Your task to perform on an android device: Go to Android settings Image 0: 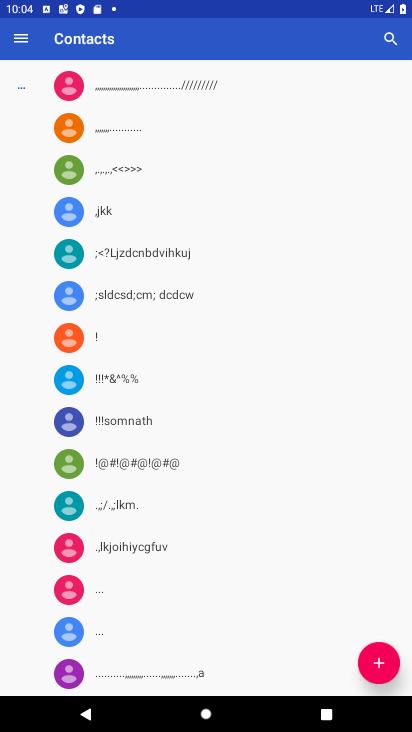
Step 0: press home button
Your task to perform on an android device: Go to Android settings Image 1: 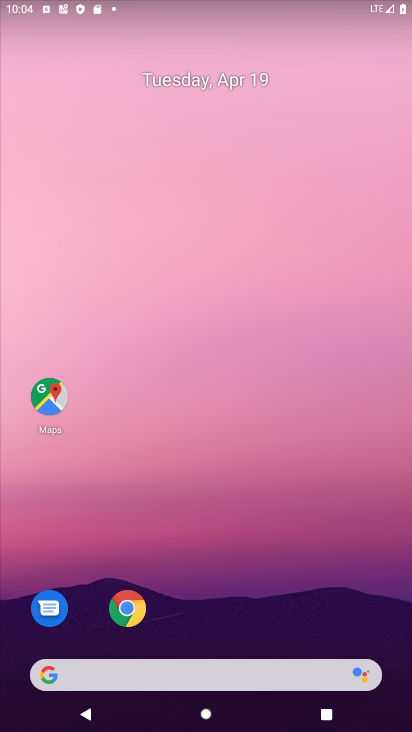
Step 1: drag from (292, 618) to (231, 226)
Your task to perform on an android device: Go to Android settings Image 2: 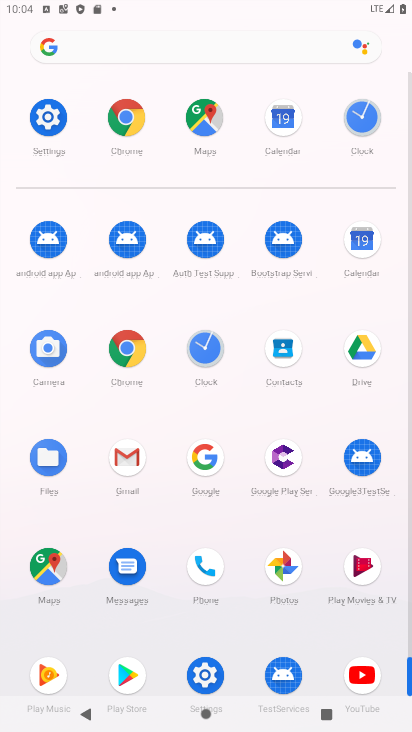
Step 2: click (202, 671)
Your task to perform on an android device: Go to Android settings Image 3: 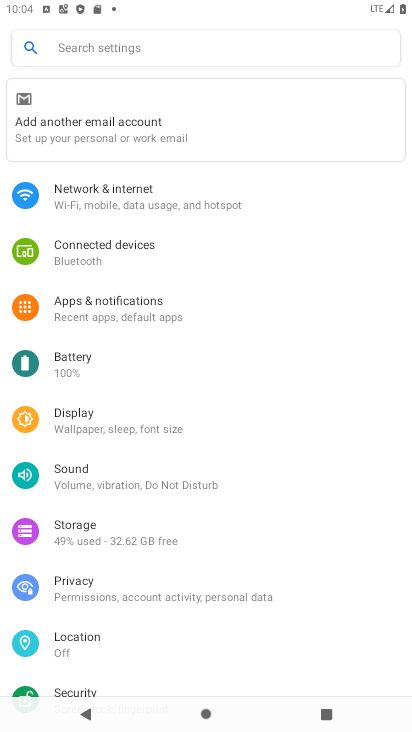
Step 3: drag from (260, 588) to (261, 328)
Your task to perform on an android device: Go to Android settings Image 4: 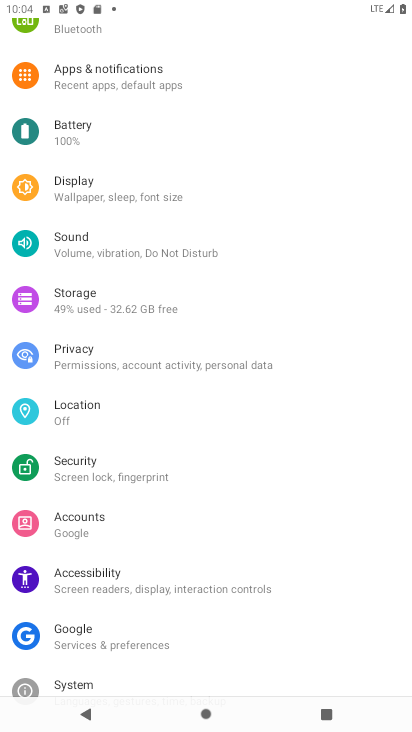
Step 4: drag from (237, 620) to (258, 367)
Your task to perform on an android device: Go to Android settings Image 5: 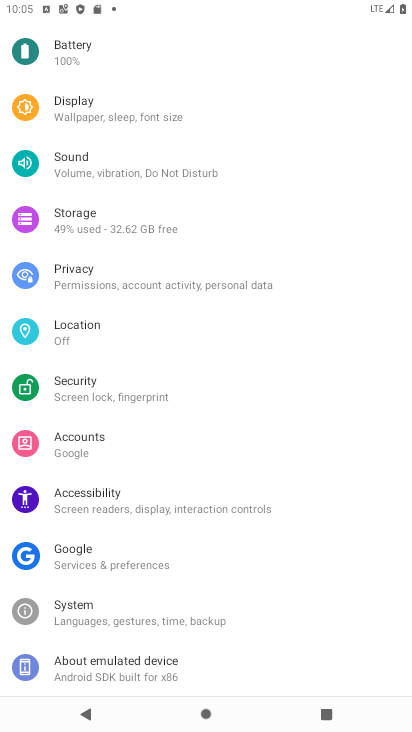
Step 5: click (103, 669)
Your task to perform on an android device: Go to Android settings Image 6: 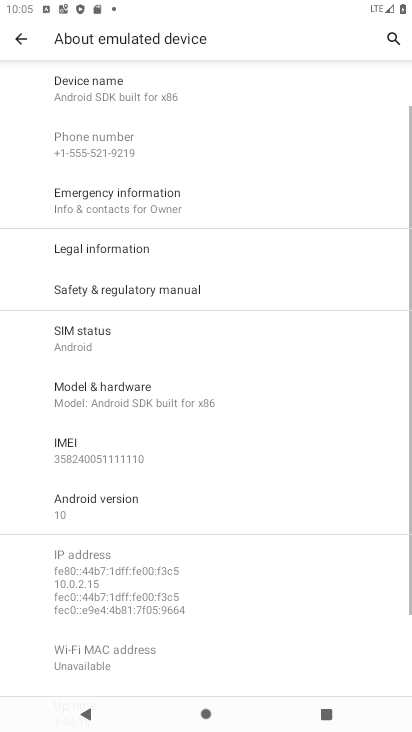
Step 6: task complete